Your task to perform on an android device: Go to location settings Image 0: 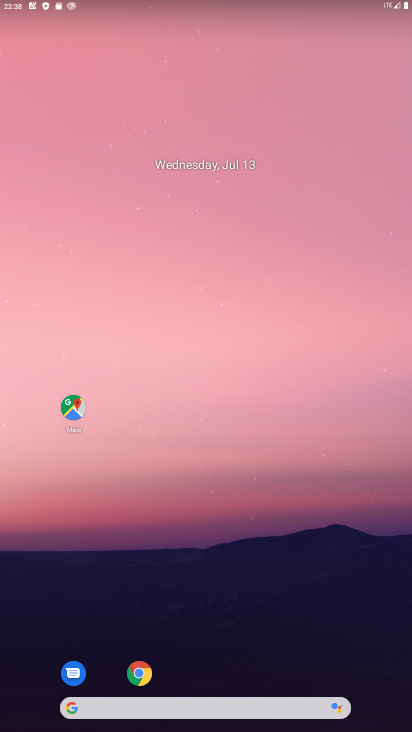
Step 0: drag from (59, 442) to (109, 0)
Your task to perform on an android device: Go to location settings Image 1: 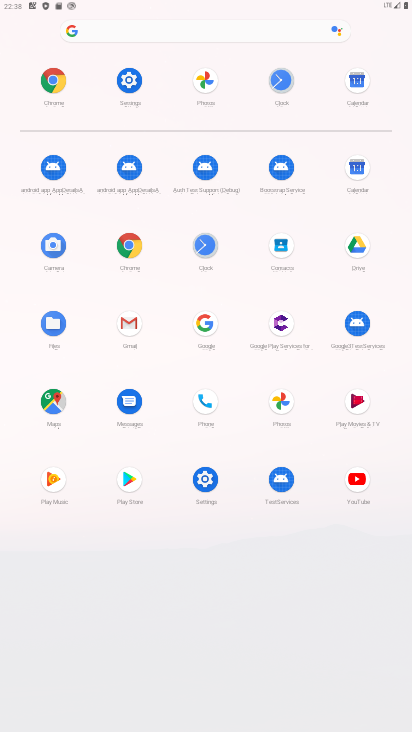
Step 1: click (199, 468)
Your task to perform on an android device: Go to location settings Image 2: 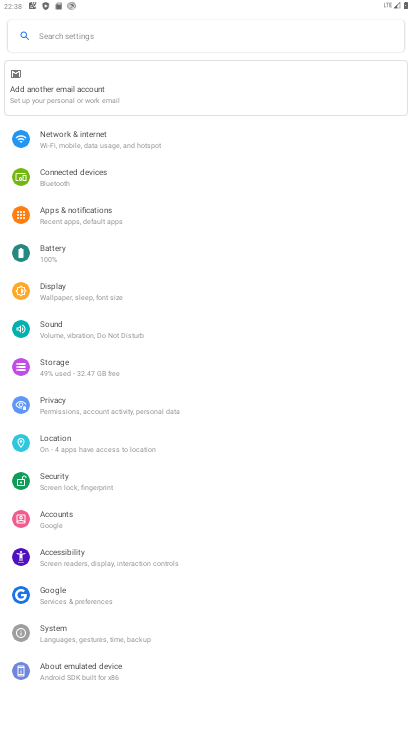
Step 2: click (89, 438)
Your task to perform on an android device: Go to location settings Image 3: 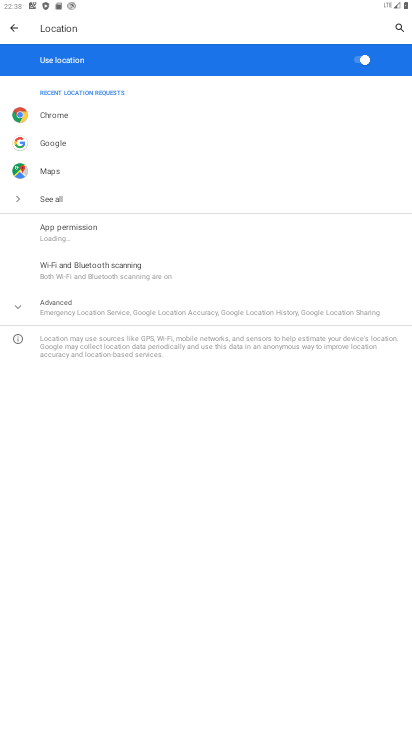
Step 3: click (73, 310)
Your task to perform on an android device: Go to location settings Image 4: 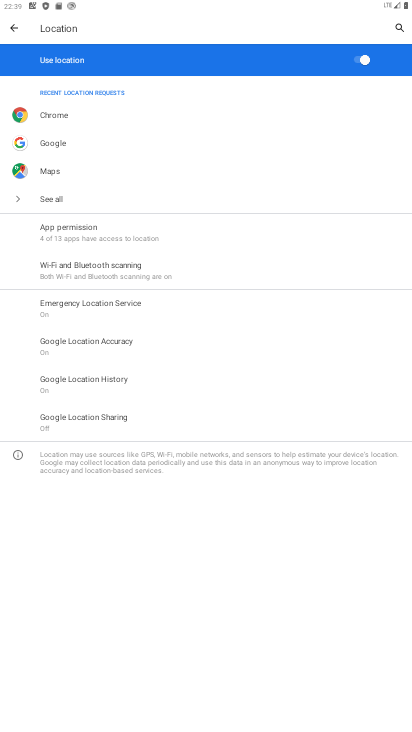
Step 4: task complete